Your task to perform on an android device: turn off priority inbox in the gmail app Image 0: 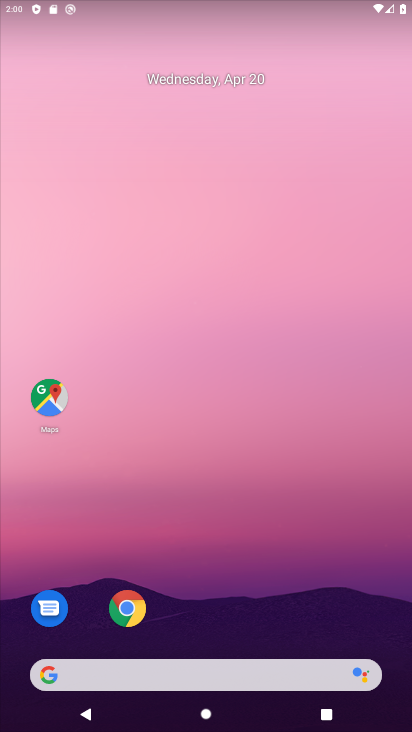
Step 0: drag from (286, 451) to (279, 160)
Your task to perform on an android device: turn off priority inbox in the gmail app Image 1: 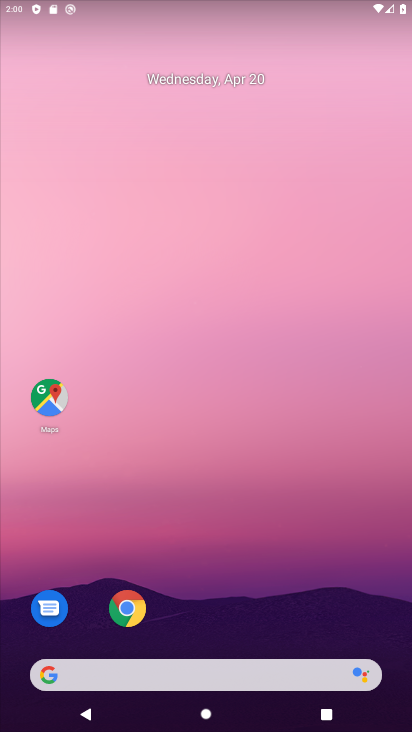
Step 1: drag from (335, 581) to (320, 68)
Your task to perform on an android device: turn off priority inbox in the gmail app Image 2: 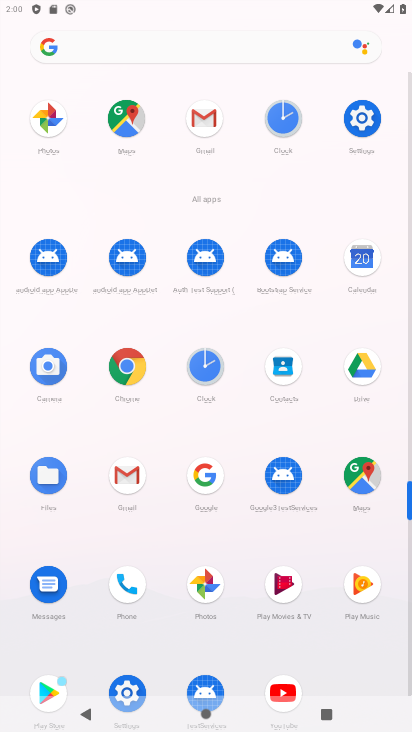
Step 2: click (126, 464)
Your task to perform on an android device: turn off priority inbox in the gmail app Image 3: 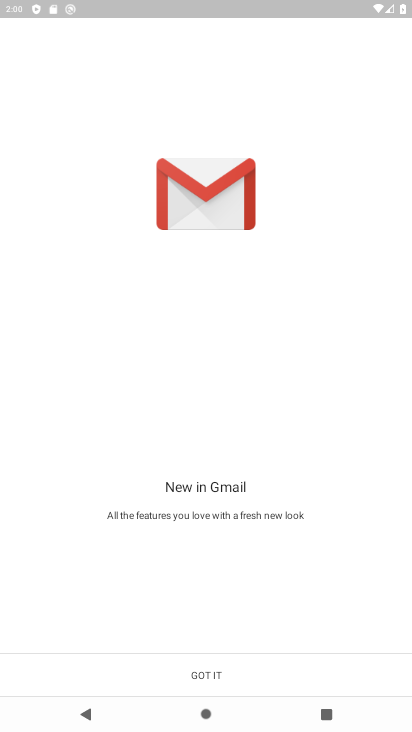
Step 3: click (197, 675)
Your task to perform on an android device: turn off priority inbox in the gmail app Image 4: 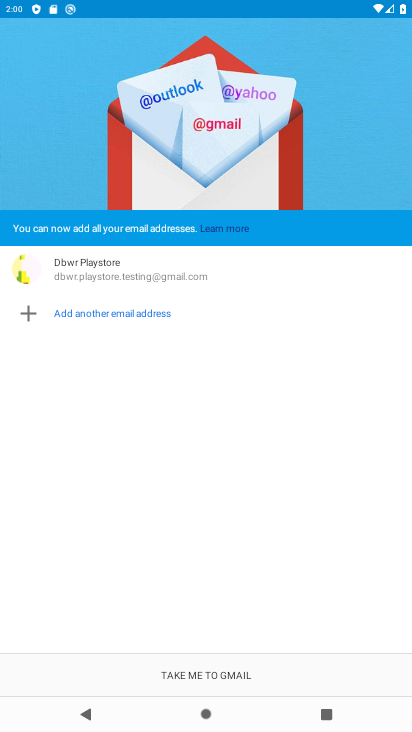
Step 4: click (198, 675)
Your task to perform on an android device: turn off priority inbox in the gmail app Image 5: 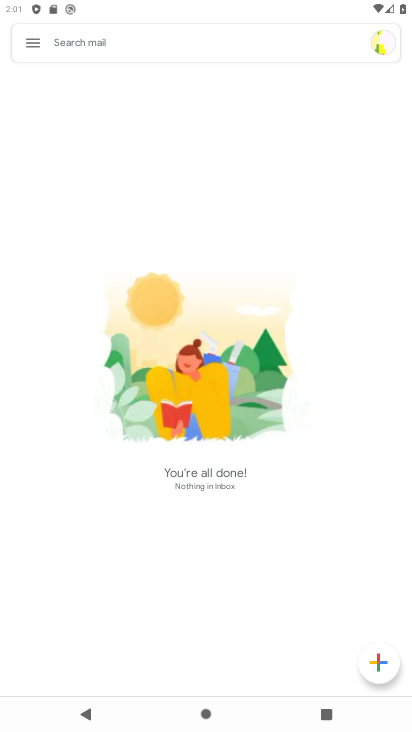
Step 5: click (32, 35)
Your task to perform on an android device: turn off priority inbox in the gmail app Image 6: 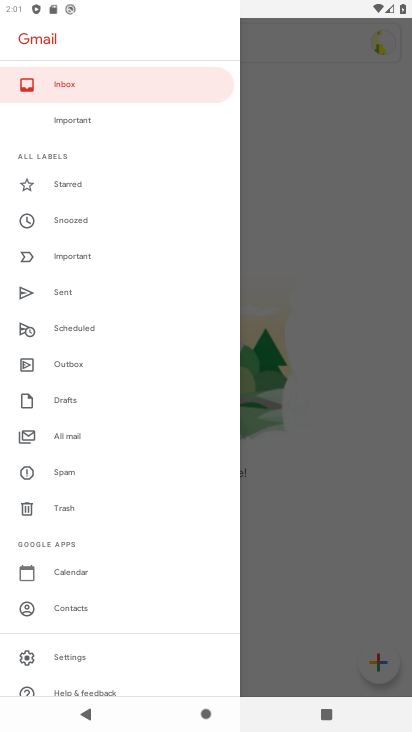
Step 6: click (153, 318)
Your task to perform on an android device: turn off priority inbox in the gmail app Image 7: 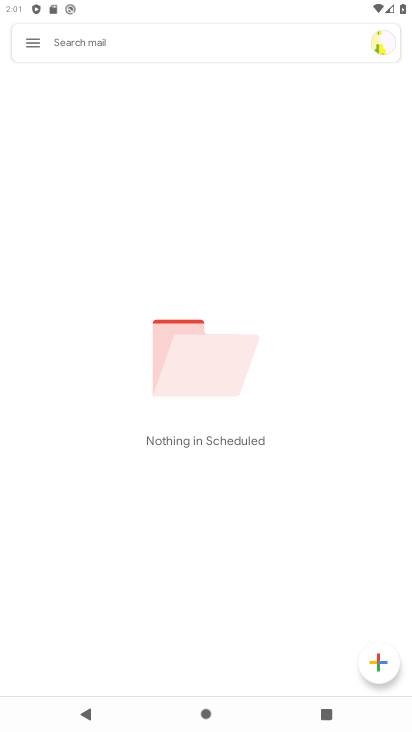
Step 7: click (25, 52)
Your task to perform on an android device: turn off priority inbox in the gmail app Image 8: 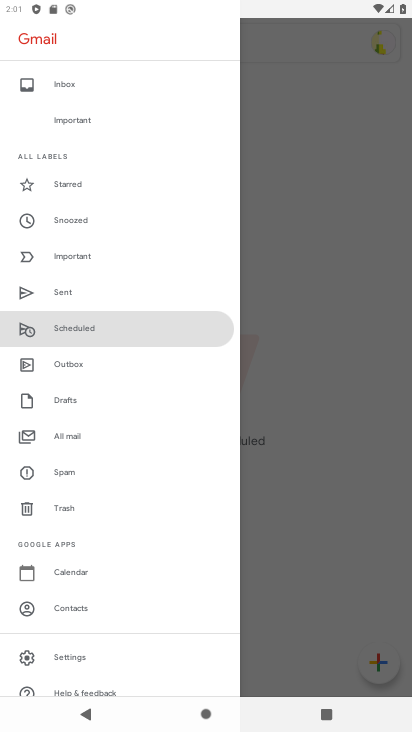
Step 8: click (83, 657)
Your task to perform on an android device: turn off priority inbox in the gmail app Image 9: 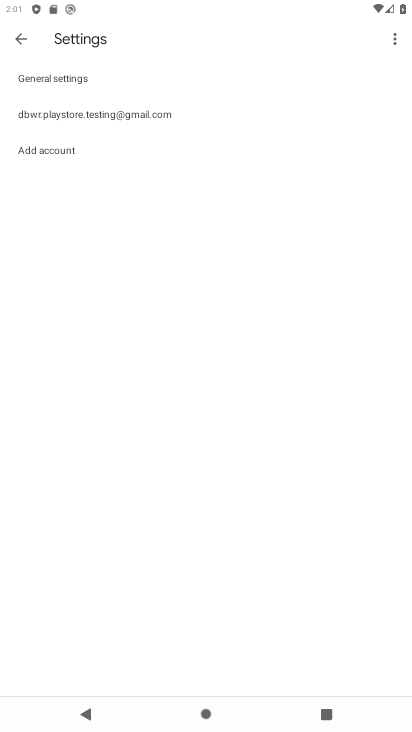
Step 9: click (111, 130)
Your task to perform on an android device: turn off priority inbox in the gmail app Image 10: 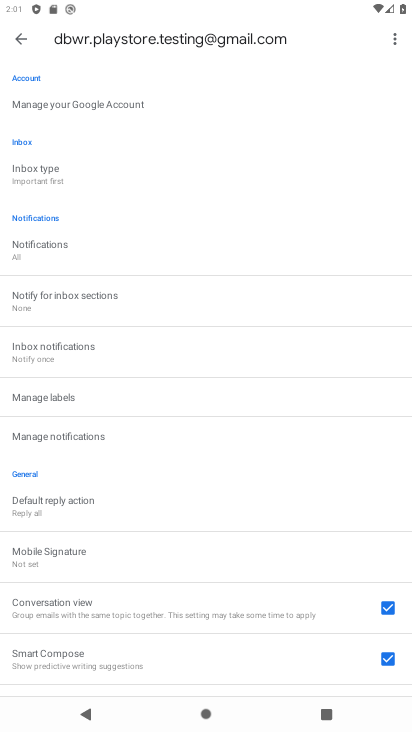
Step 10: drag from (164, 504) to (153, 321)
Your task to perform on an android device: turn off priority inbox in the gmail app Image 11: 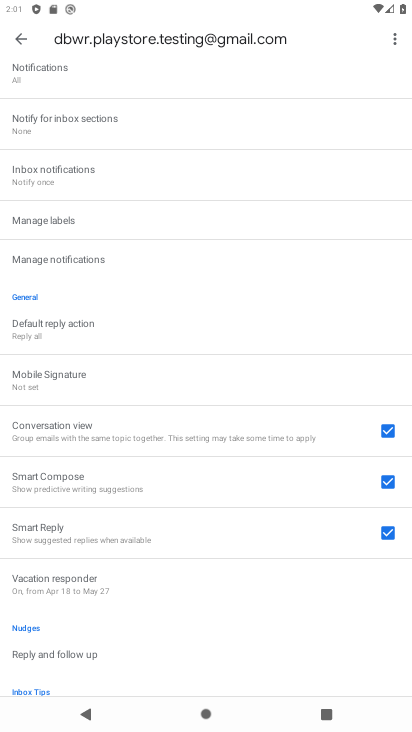
Step 11: drag from (153, 327) to (171, 584)
Your task to perform on an android device: turn off priority inbox in the gmail app Image 12: 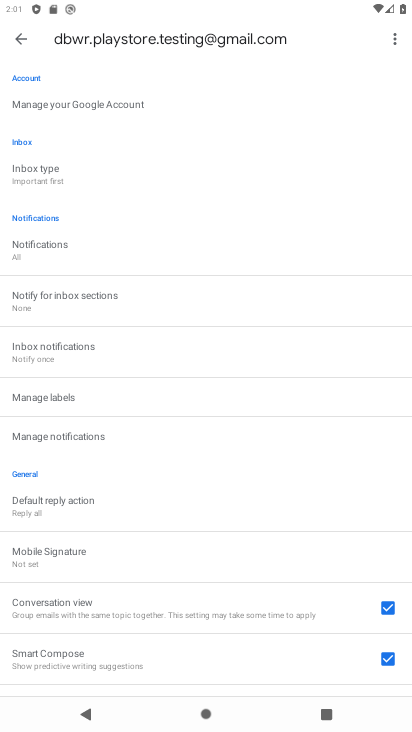
Step 12: click (53, 174)
Your task to perform on an android device: turn off priority inbox in the gmail app Image 13: 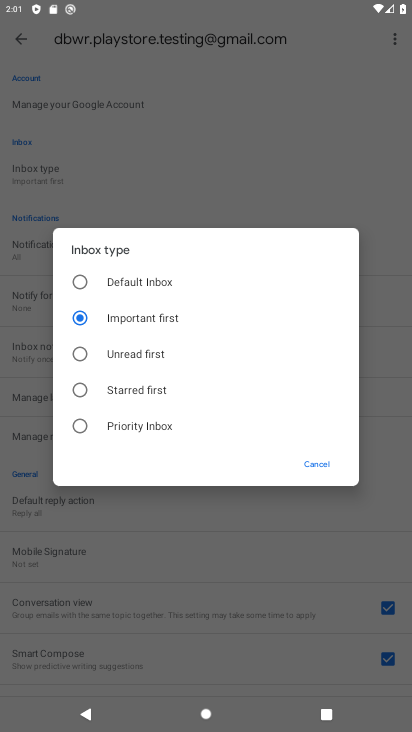
Step 13: task complete